Your task to perform on an android device: View the shopping cart on amazon.com. Add usb-a to usb-b to the cart on amazon.com Image 0: 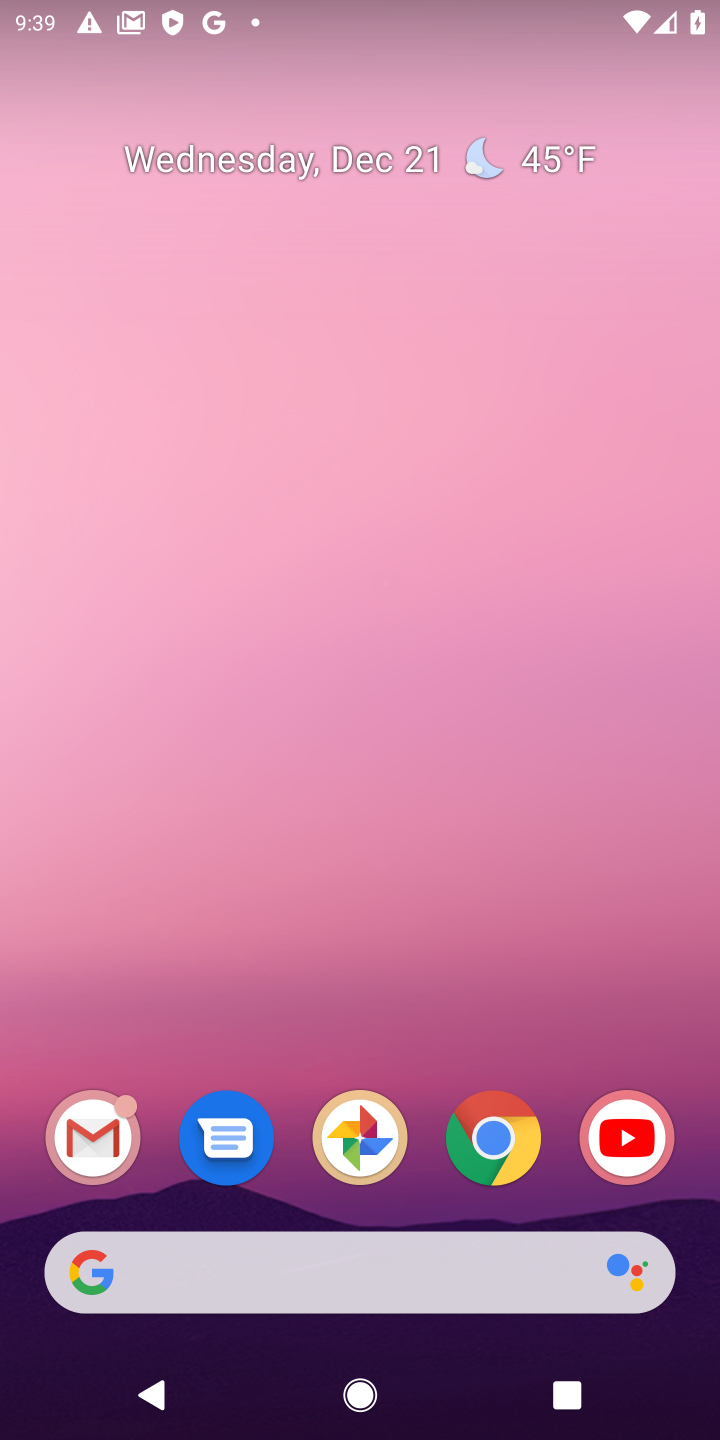
Step 0: click (502, 1143)
Your task to perform on an android device: View the shopping cart on amazon.com. Add usb-a to usb-b to the cart on amazon.com Image 1: 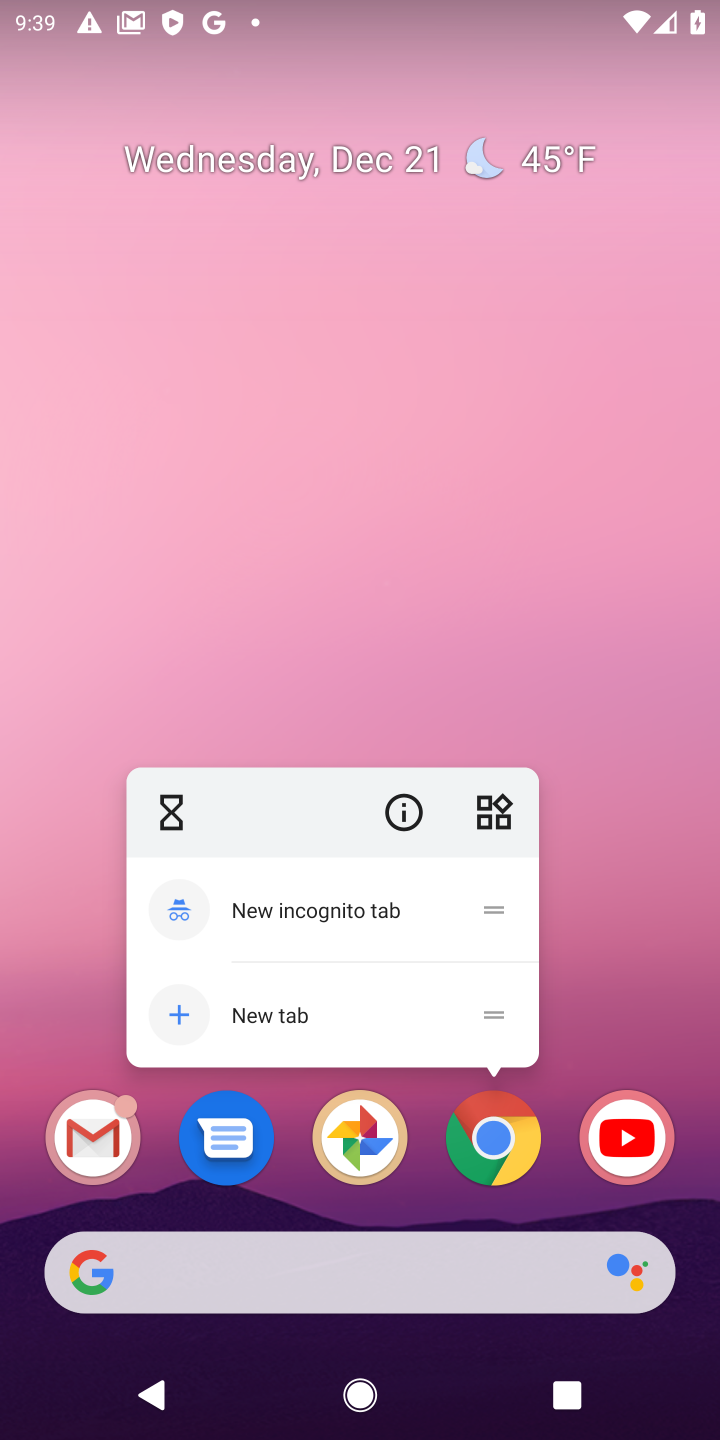
Step 1: click (502, 1143)
Your task to perform on an android device: View the shopping cart on amazon.com. Add usb-a to usb-b to the cart on amazon.com Image 2: 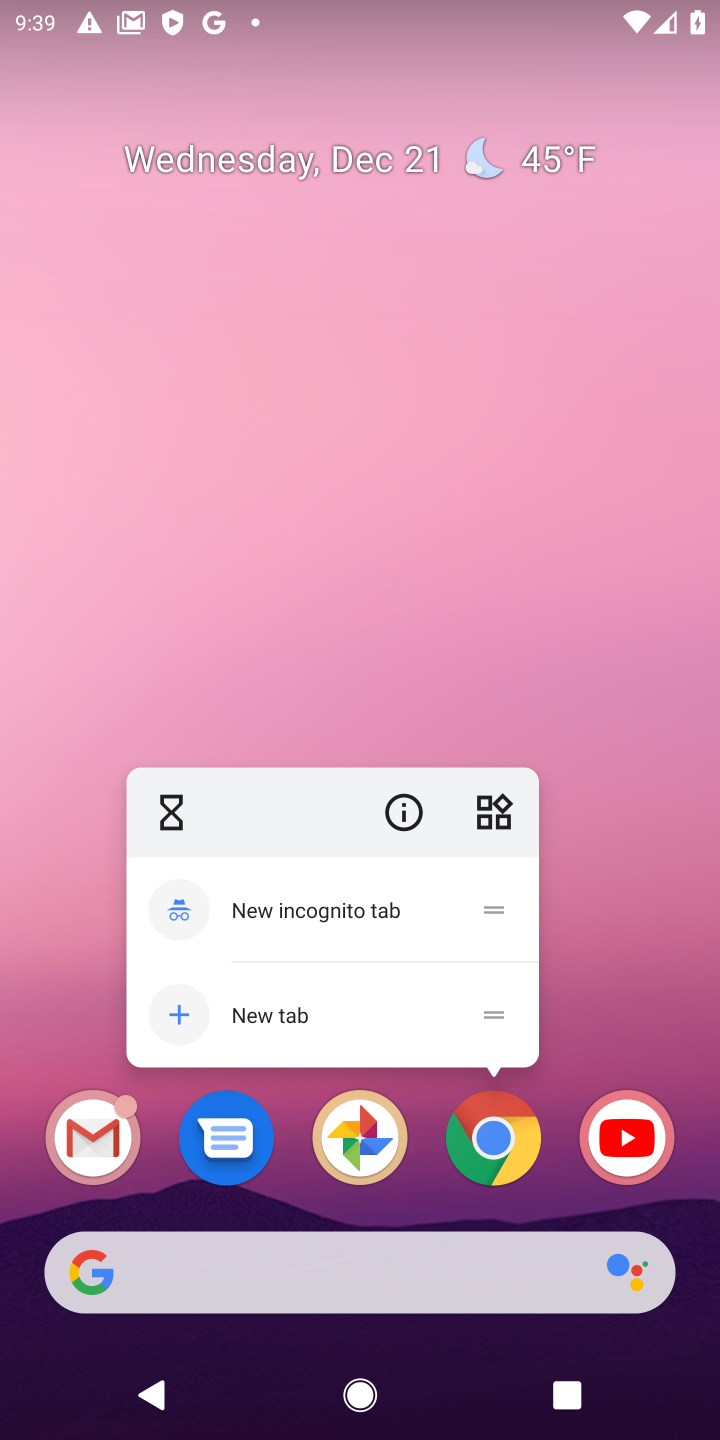
Step 2: click (502, 1143)
Your task to perform on an android device: View the shopping cart on amazon.com. Add usb-a to usb-b to the cart on amazon.com Image 3: 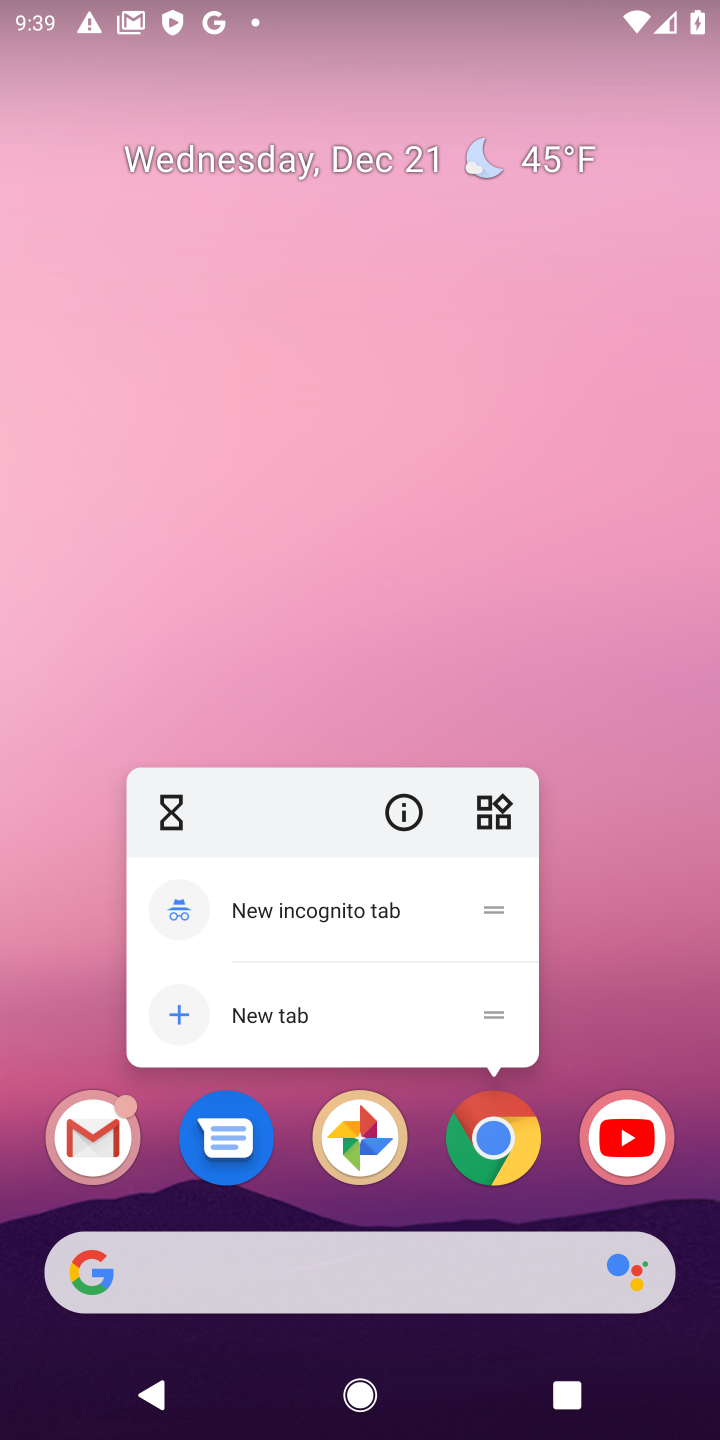
Step 3: click (502, 1143)
Your task to perform on an android device: View the shopping cart on amazon.com. Add usb-a to usb-b to the cart on amazon.com Image 4: 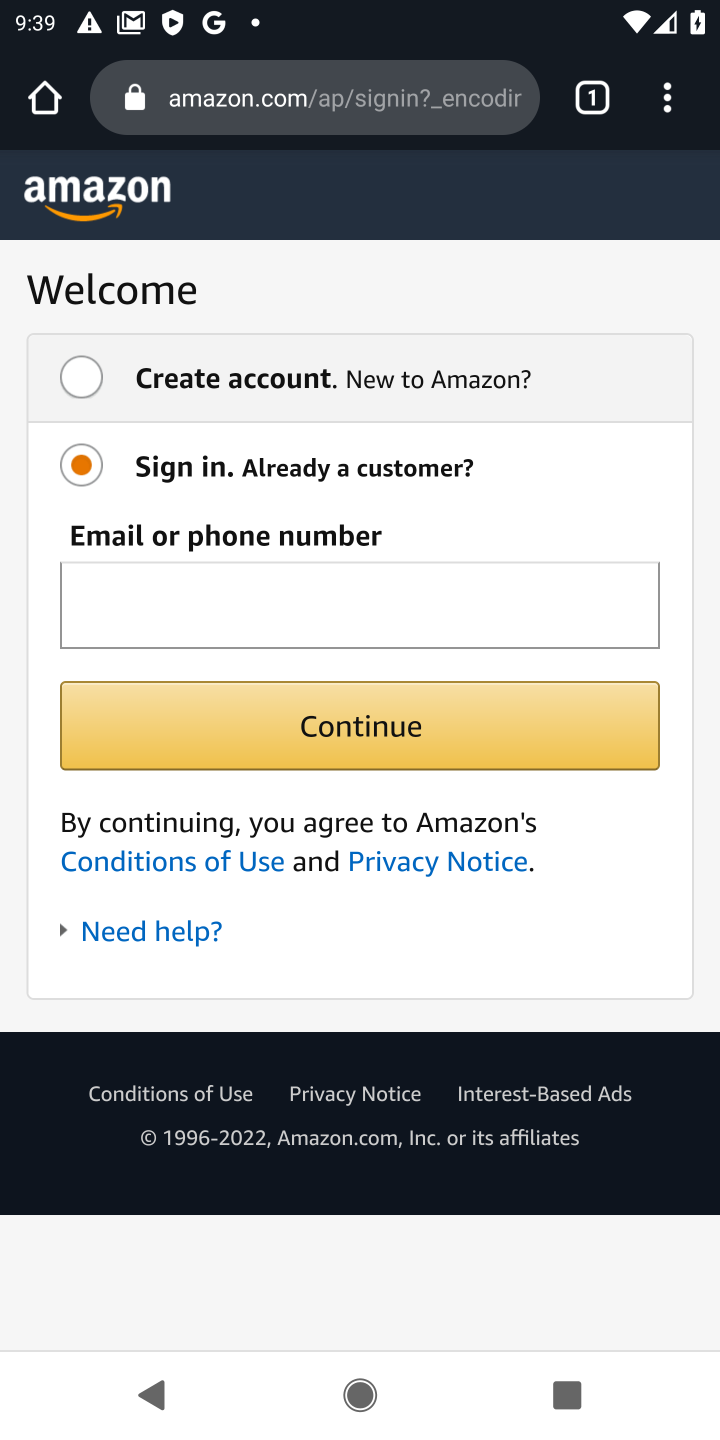
Step 4: press back button
Your task to perform on an android device: View the shopping cart on amazon.com. Add usb-a to usb-b to the cart on amazon.com Image 5: 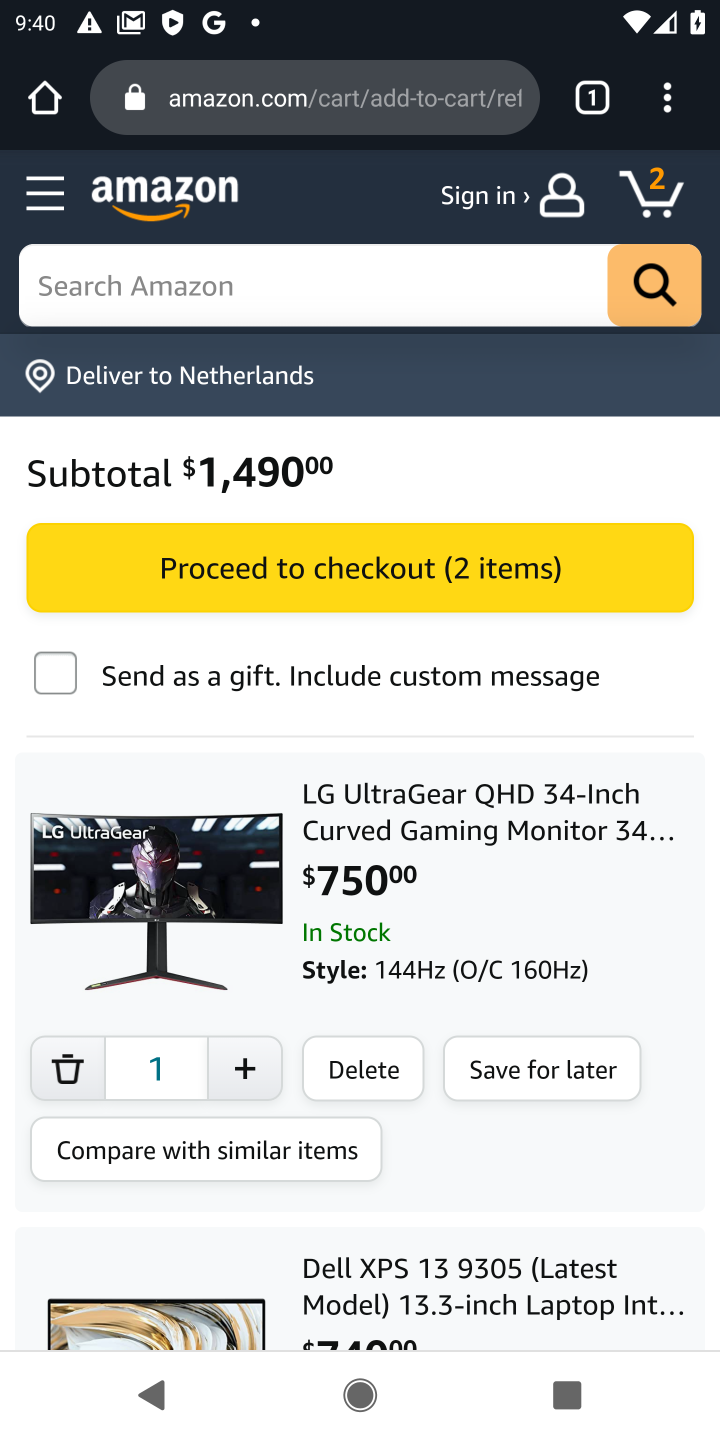
Step 5: click (131, 283)
Your task to perform on an android device: View the shopping cart on amazon.com. Add usb-a to usb-b to the cart on amazon.com Image 6: 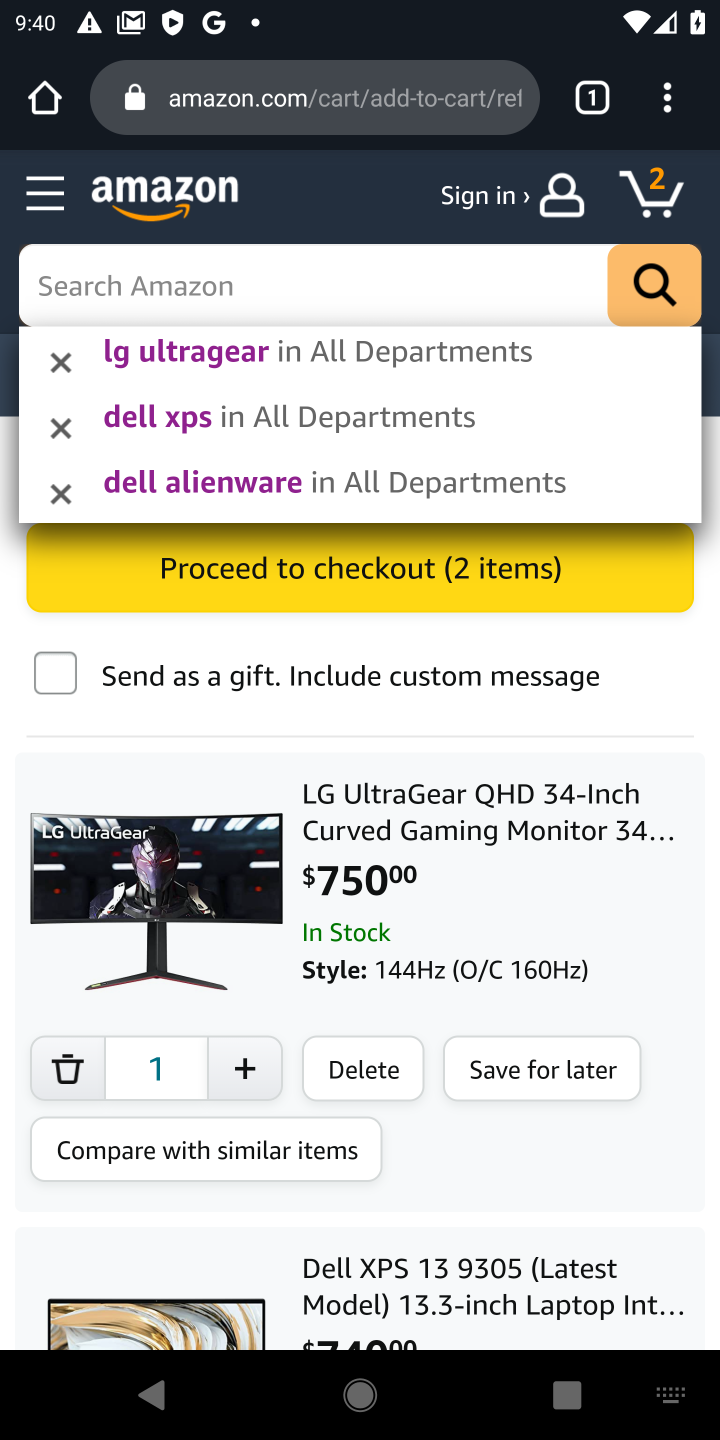
Step 6: type "usb-a to usb-b"
Your task to perform on an android device: View the shopping cart on amazon.com. Add usb-a to usb-b to the cart on amazon.com Image 7: 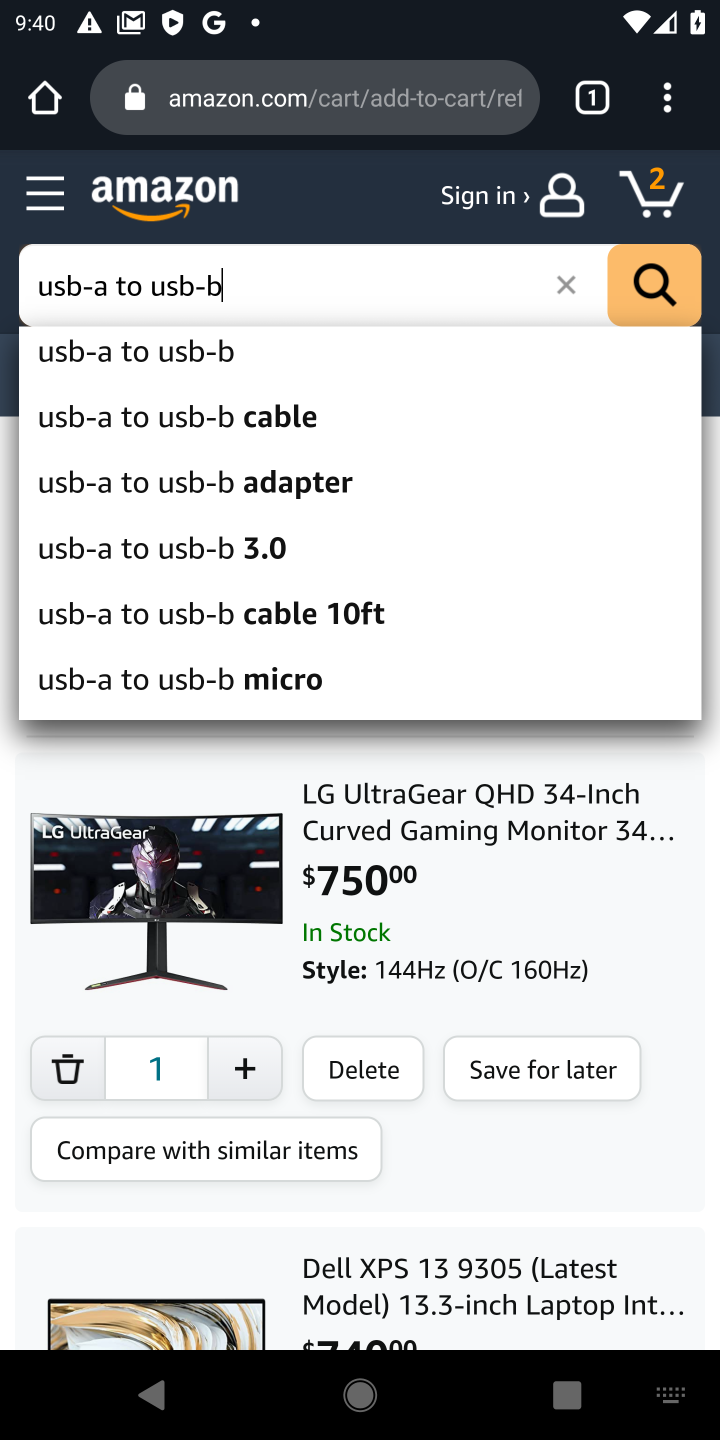
Step 7: click (672, 294)
Your task to perform on an android device: View the shopping cart on amazon.com. Add usb-a to usb-b to the cart on amazon.com Image 8: 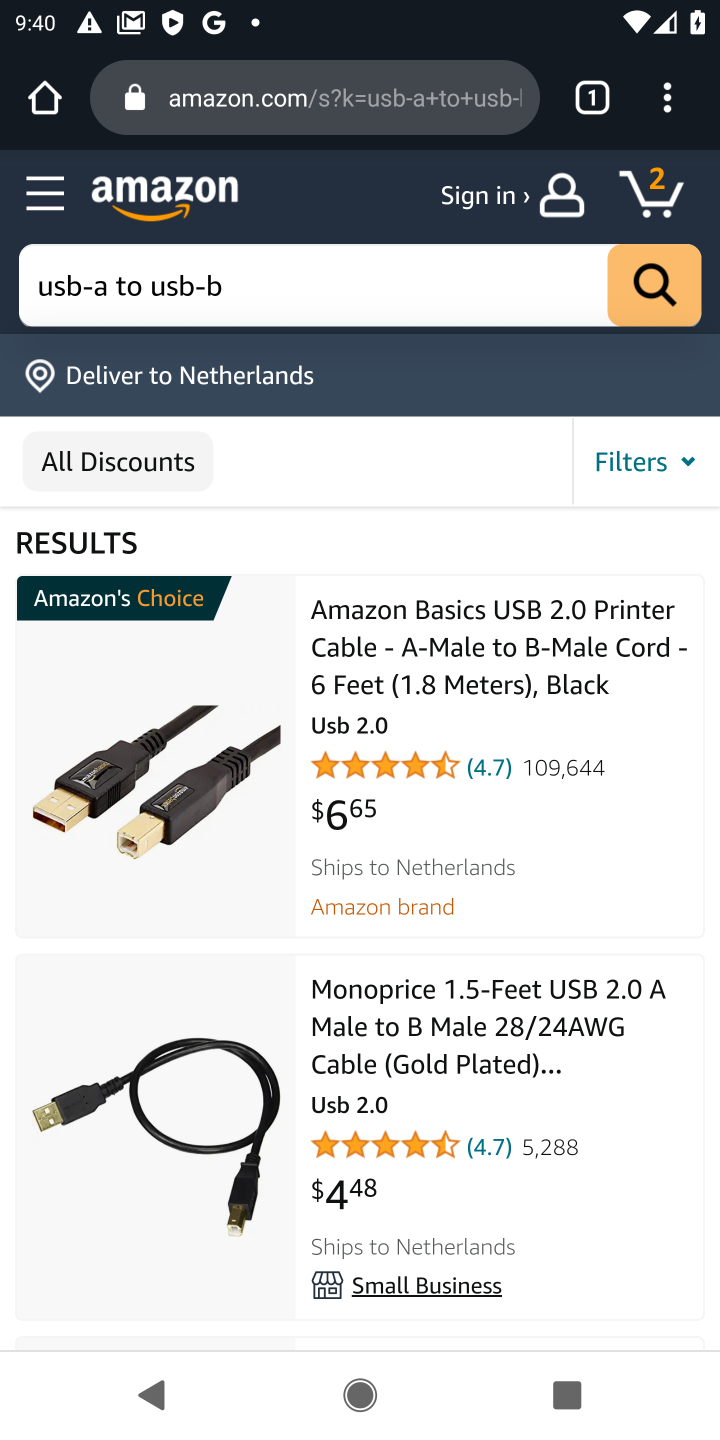
Step 8: drag from (399, 1104) to (390, 821)
Your task to perform on an android device: View the shopping cart on amazon.com. Add usb-a to usb-b to the cart on amazon.com Image 9: 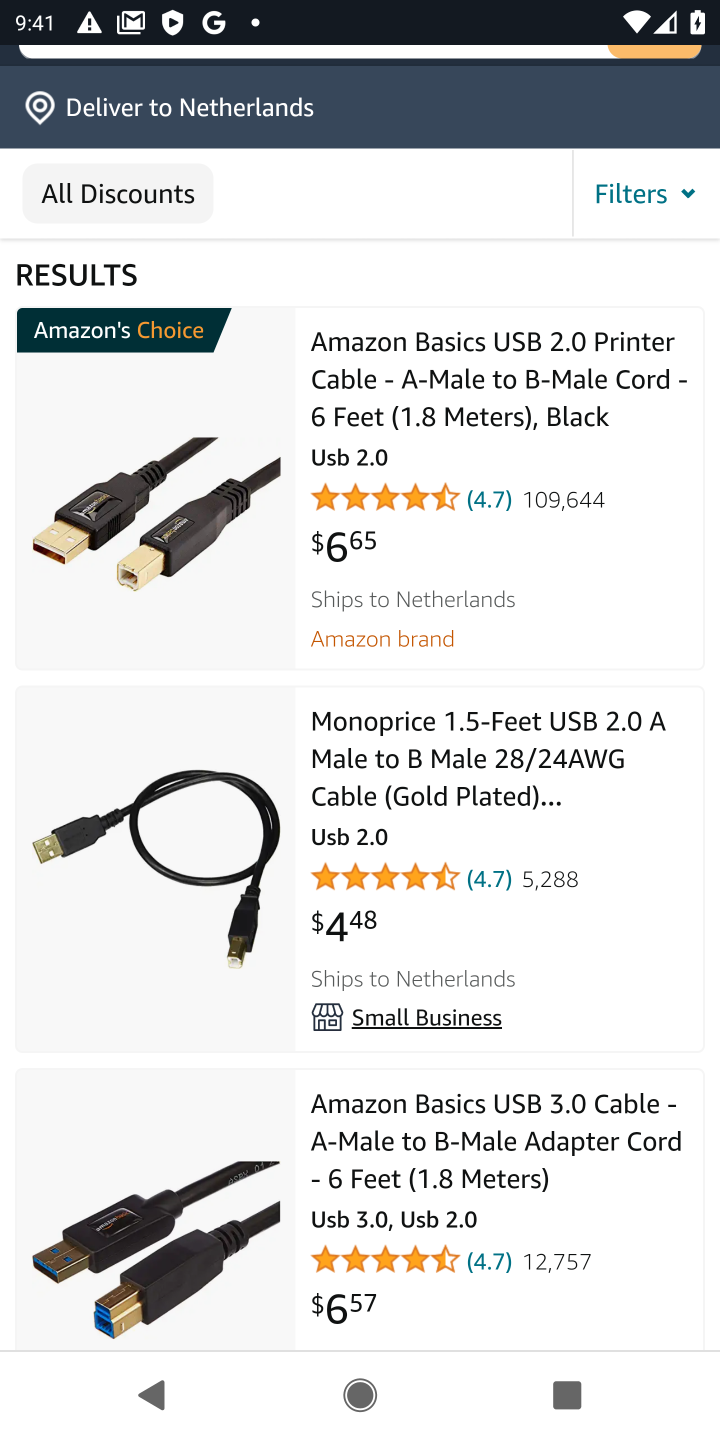
Step 9: drag from (415, 1111) to (385, 743)
Your task to perform on an android device: View the shopping cart on amazon.com. Add usb-a to usb-b to the cart on amazon.com Image 10: 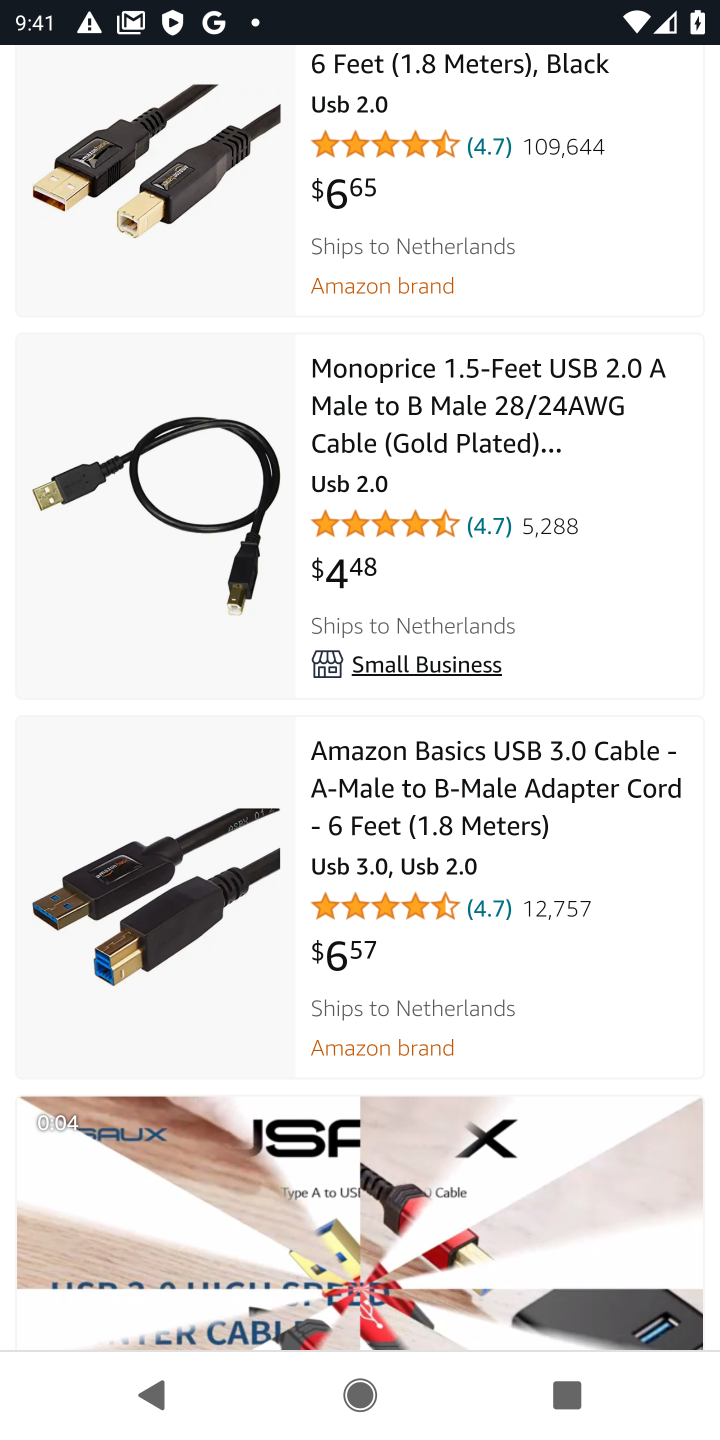
Step 10: drag from (363, 977) to (321, 571)
Your task to perform on an android device: View the shopping cart on amazon.com. Add usb-a to usb-b to the cart on amazon.com Image 11: 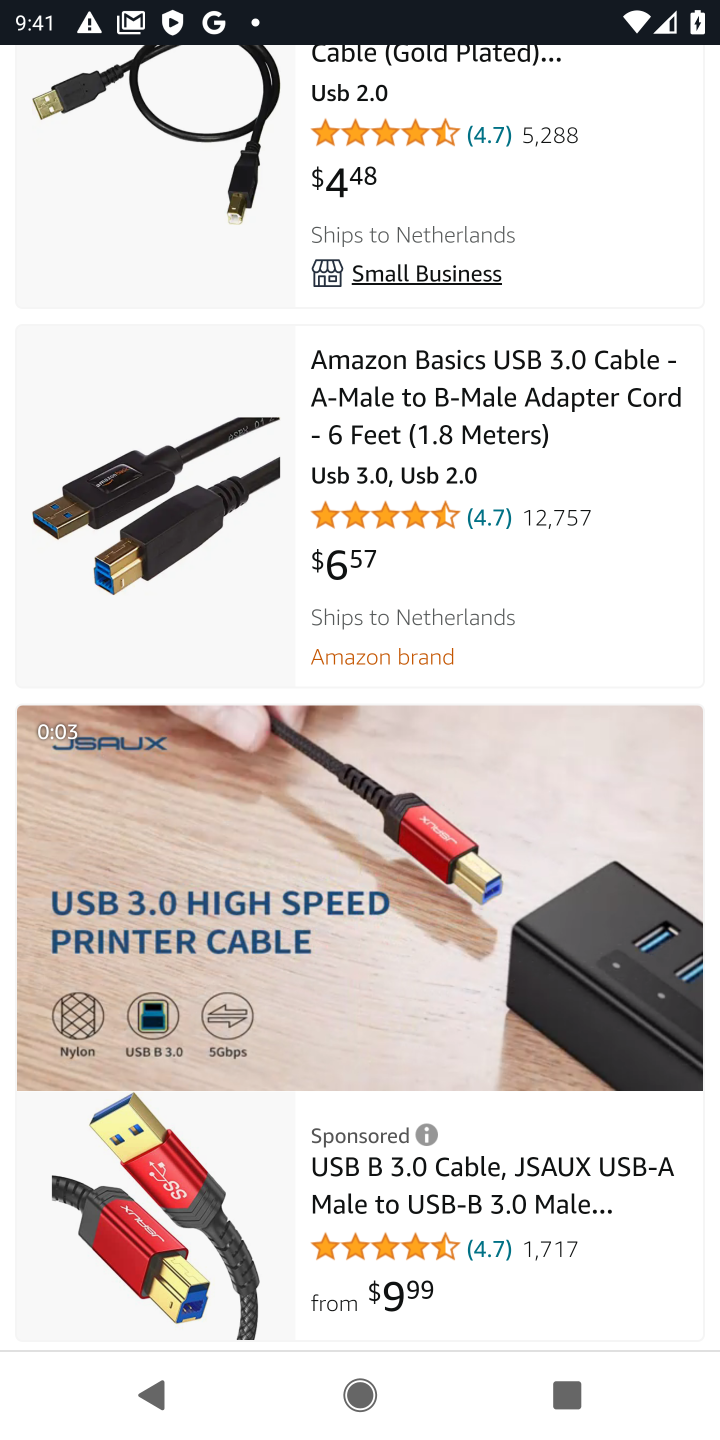
Step 11: drag from (391, 1014) to (369, 680)
Your task to perform on an android device: View the shopping cart on amazon.com. Add usb-a to usb-b to the cart on amazon.com Image 12: 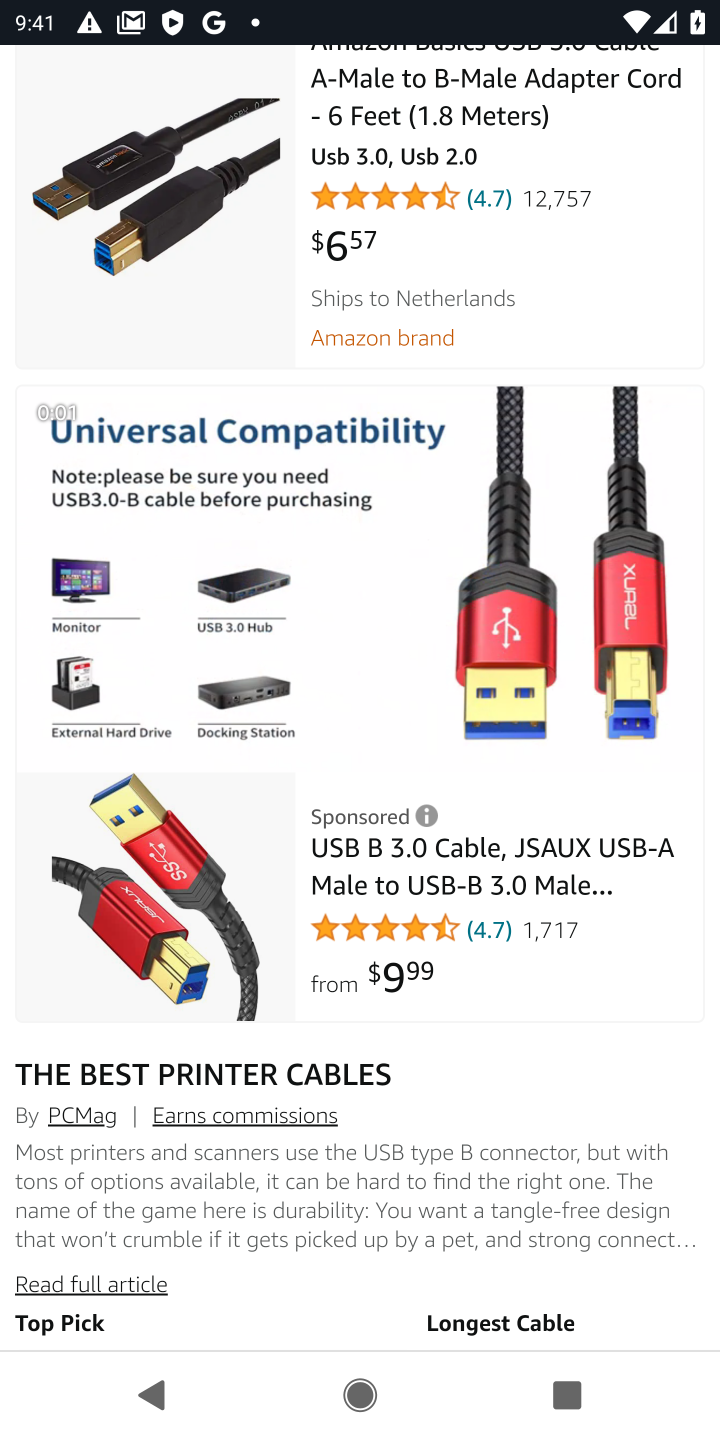
Step 12: click (344, 871)
Your task to perform on an android device: View the shopping cart on amazon.com. Add usb-a to usb-b to the cart on amazon.com Image 13: 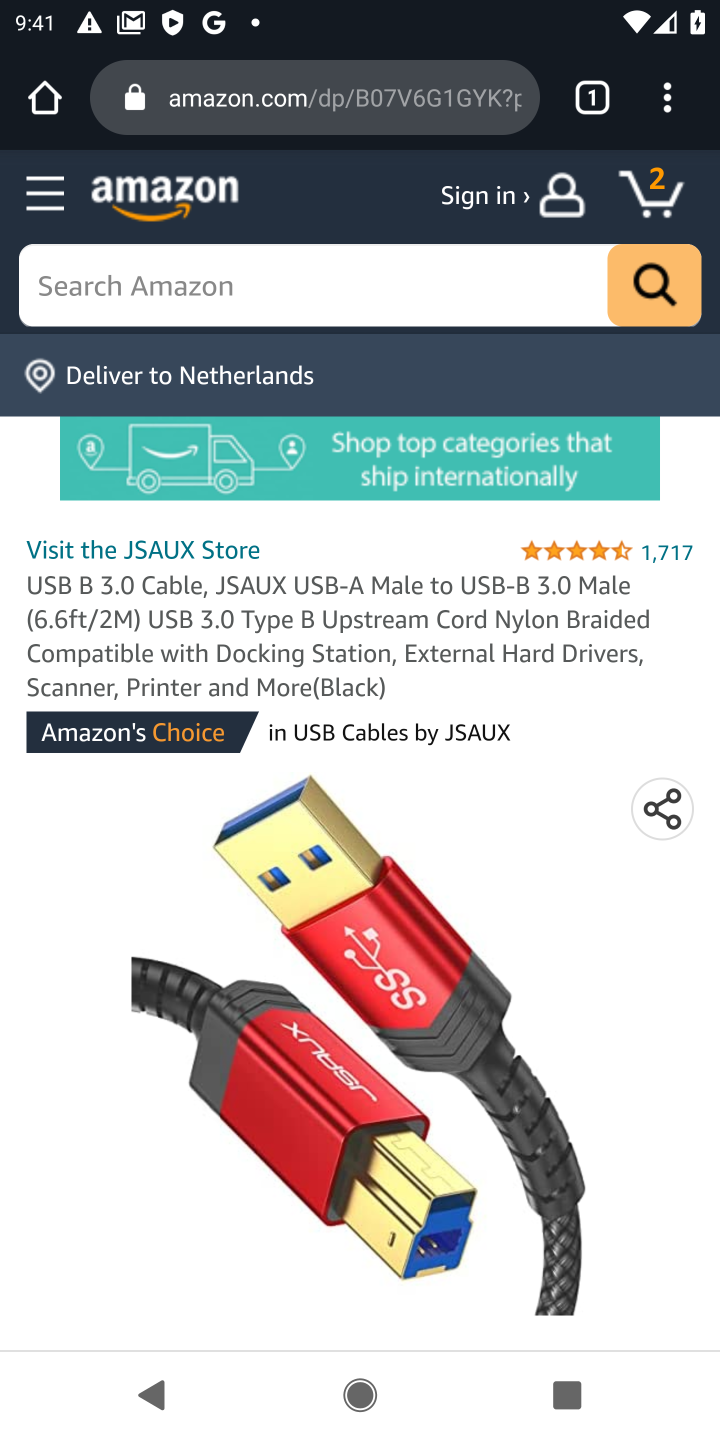
Step 13: drag from (335, 1064) to (348, 588)
Your task to perform on an android device: View the shopping cart on amazon.com. Add usb-a to usb-b to the cart on amazon.com Image 14: 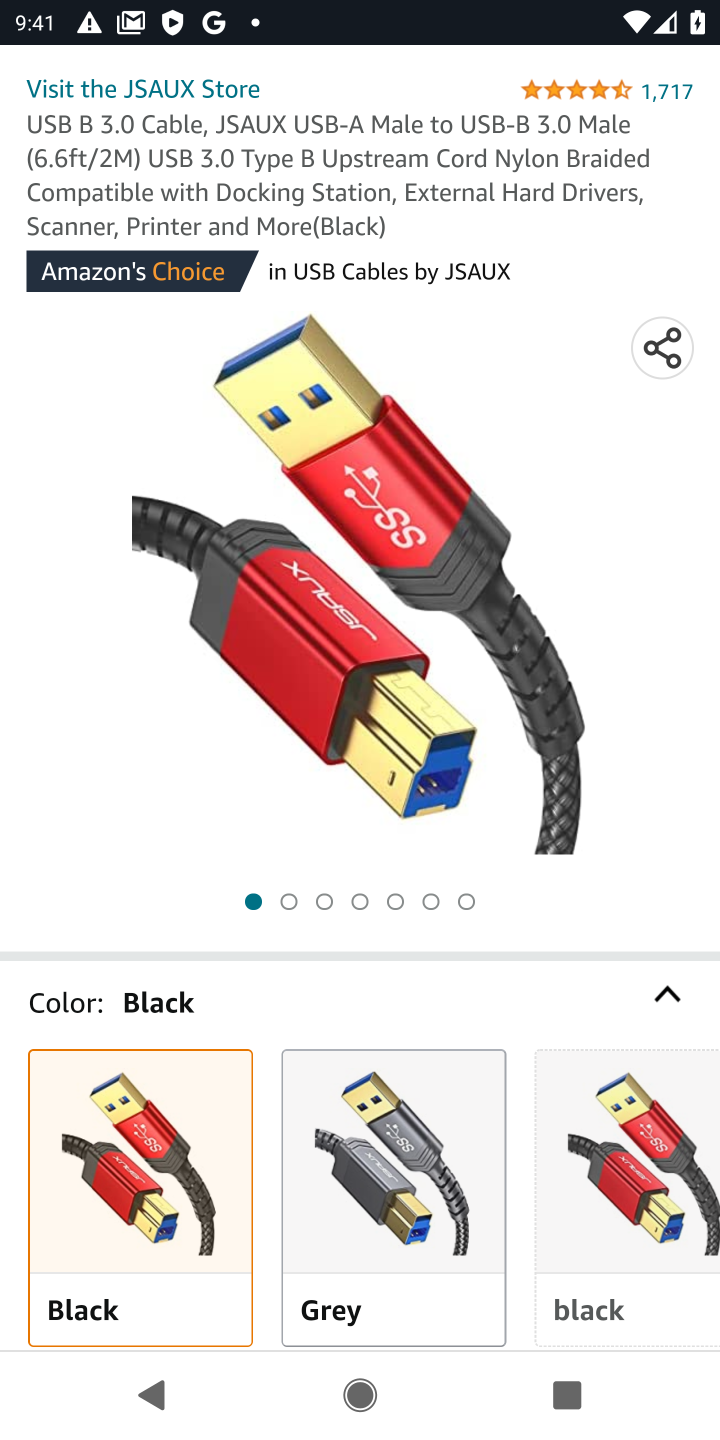
Step 14: drag from (369, 1151) to (331, 516)
Your task to perform on an android device: View the shopping cart on amazon.com. Add usb-a to usb-b to the cart on amazon.com Image 15: 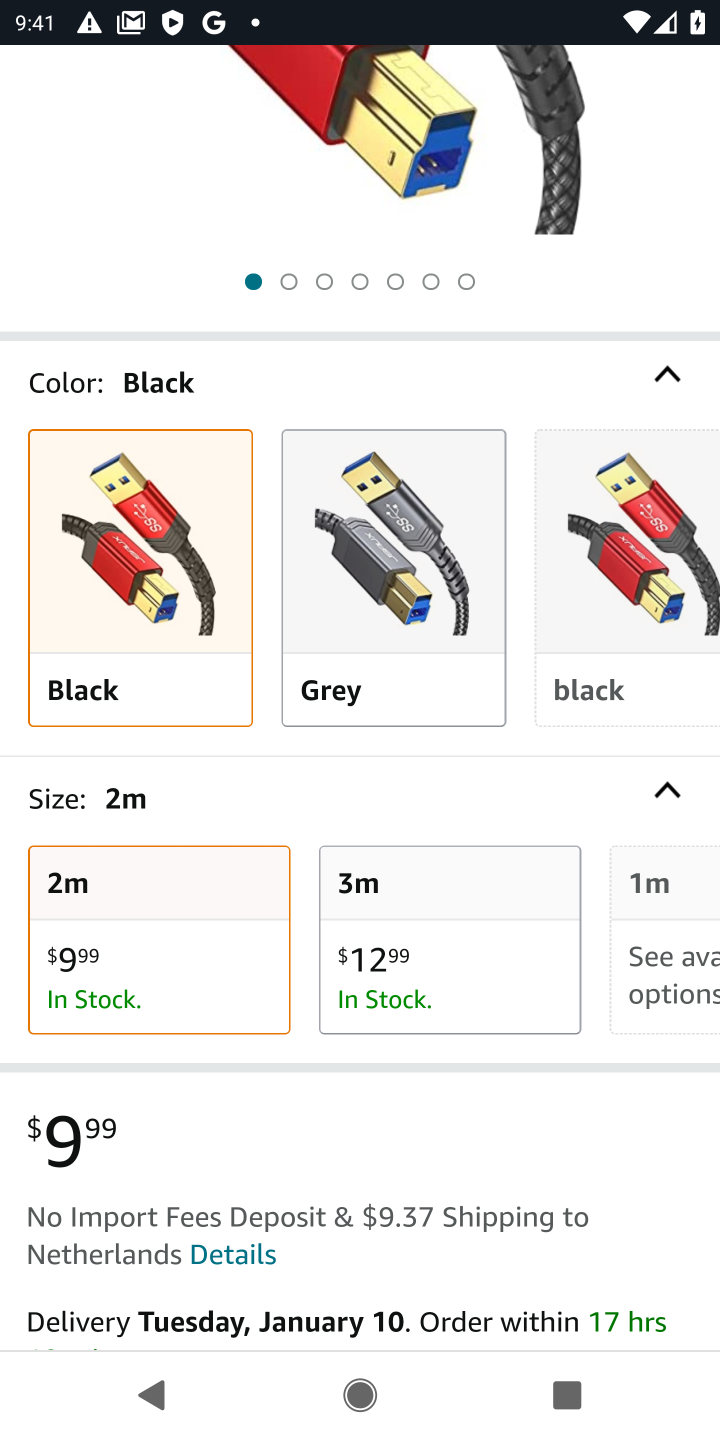
Step 15: drag from (335, 1020) to (285, 454)
Your task to perform on an android device: View the shopping cart on amazon.com. Add usb-a to usb-b to the cart on amazon.com Image 16: 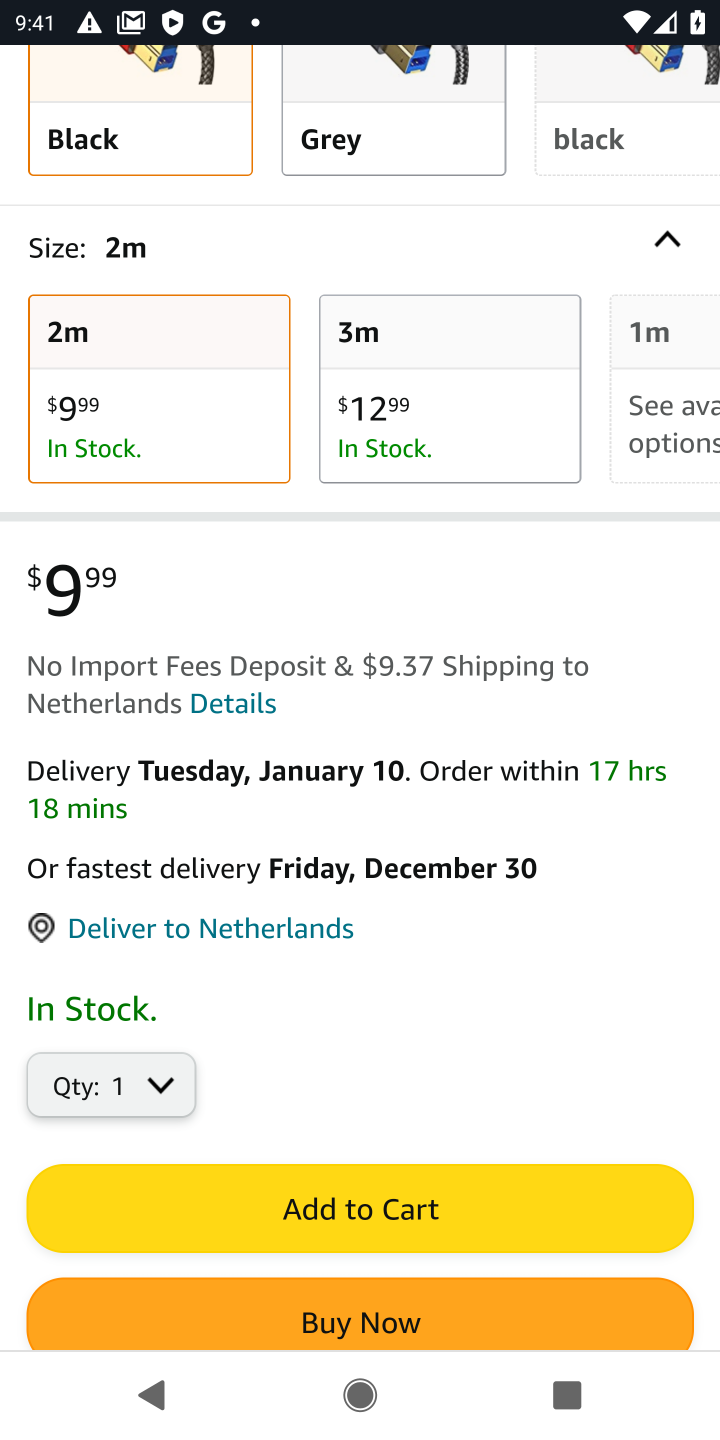
Step 16: click (325, 1216)
Your task to perform on an android device: View the shopping cart on amazon.com. Add usb-a to usb-b to the cart on amazon.com Image 17: 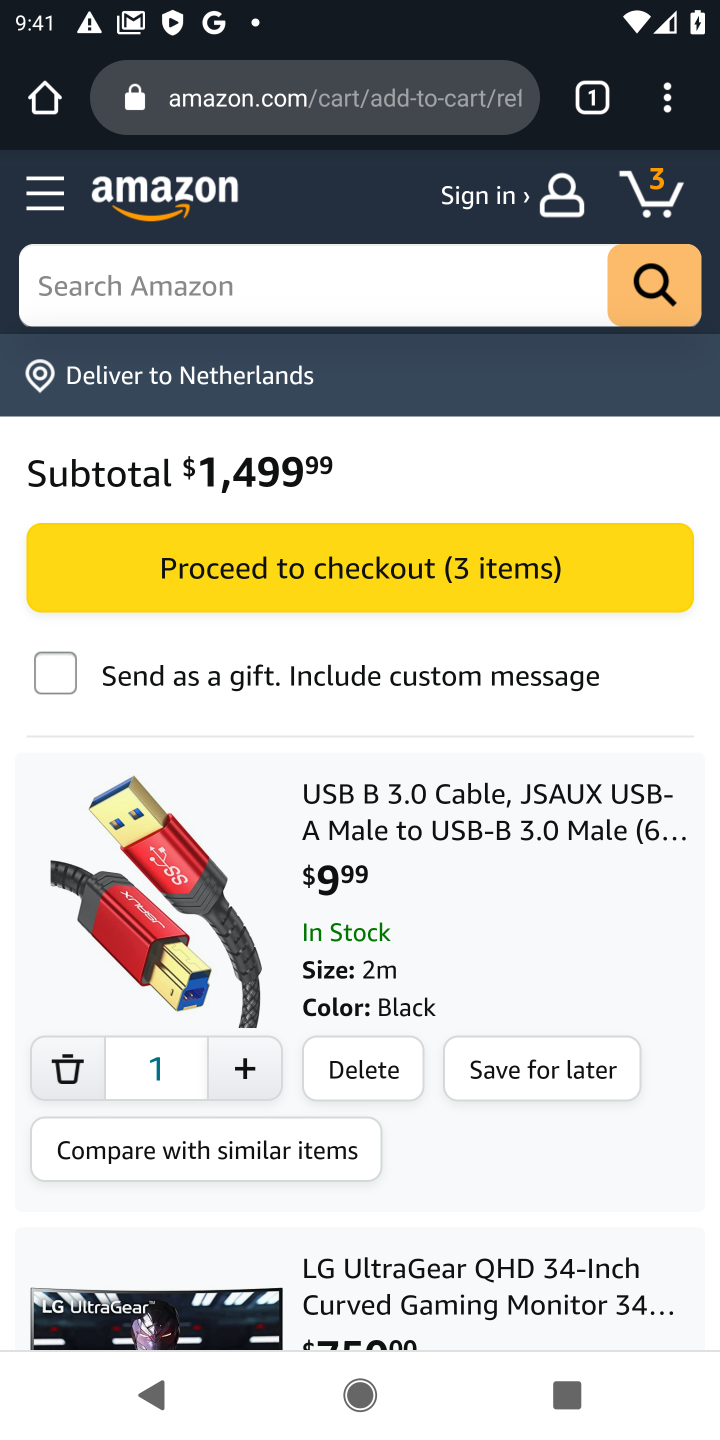
Step 17: task complete